Your task to perform on an android device: check storage Image 0: 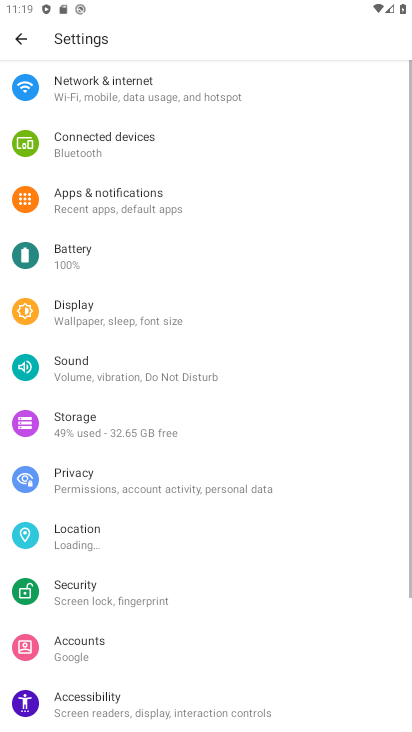
Step 0: press home button
Your task to perform on an android device: check storage Image 1: 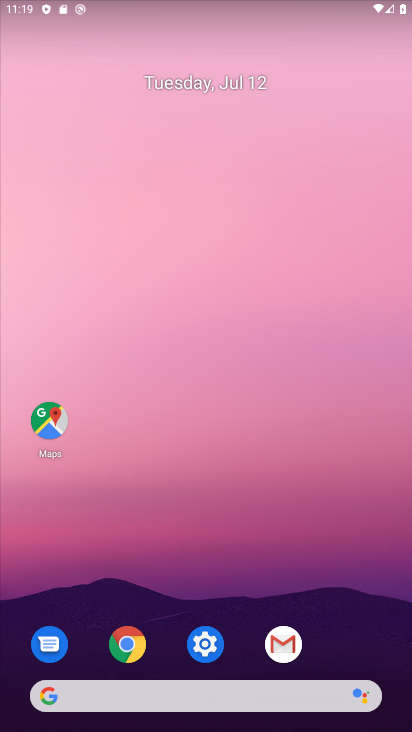
Step 1: click (203, 640)
Your task to perform on an android device: check storage Image 2: 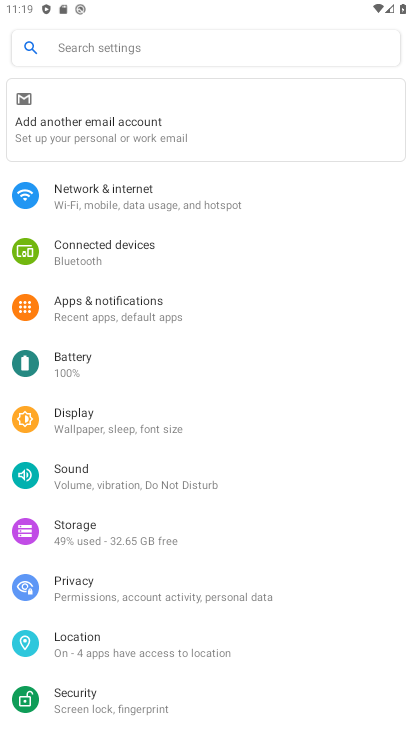
Step 2: click (131, 49)
Your task to perform on an android device: check storage Image 3: 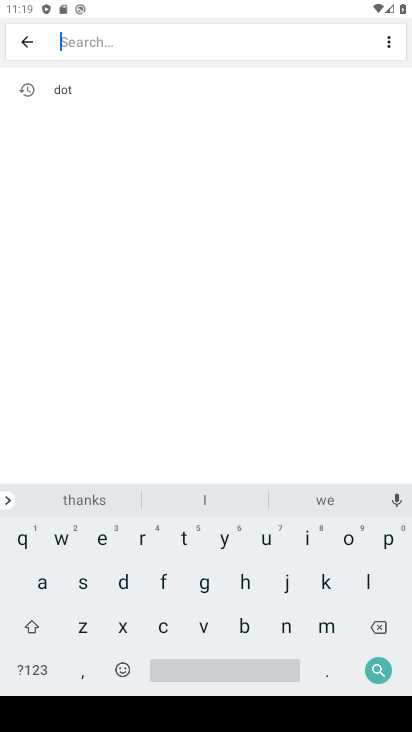
Step 3: click (84, 579)
Your task to perform on an android device: check storage Image 4: 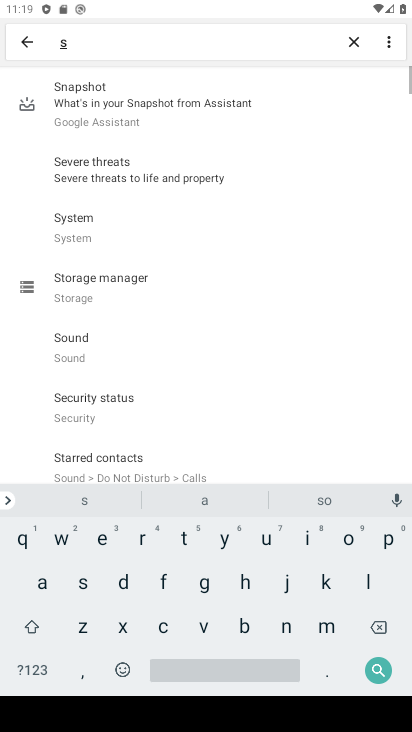
Step 4: click (187, 536)
Your task to perform on an android device: check storage Image 5: 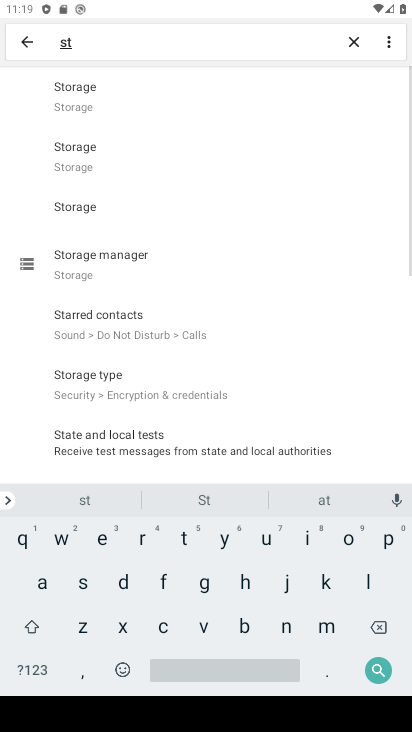
Step 5: click (117, 103)
Your task to perform on an android device: check storage Image 6: 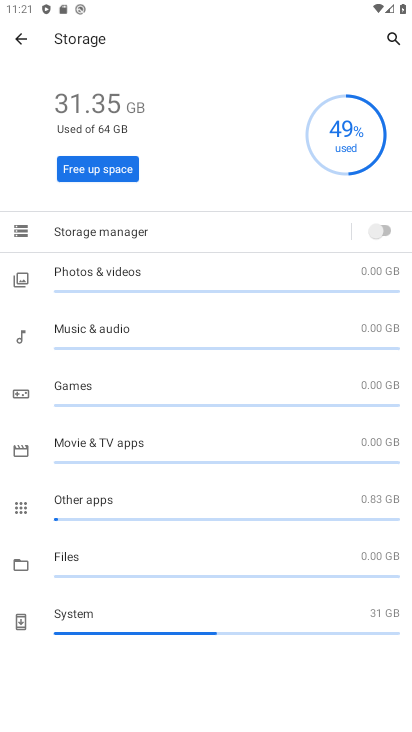
Step 6: task complete